Your task to perform on an android device: What is the news today? Image 0: 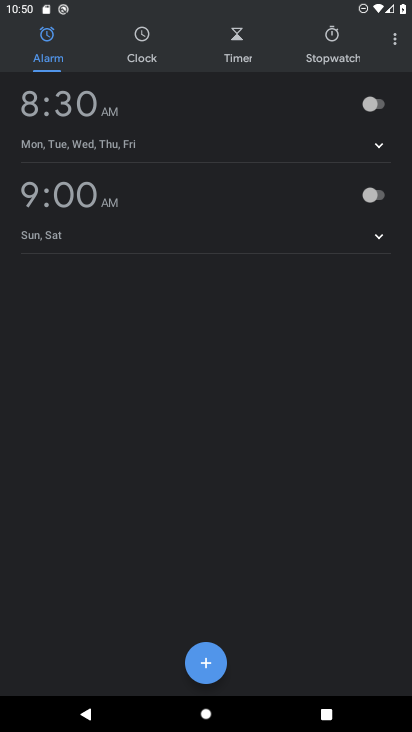
Step 0: press home button
Your task to perform on an android device: What is the news today? Image 1: 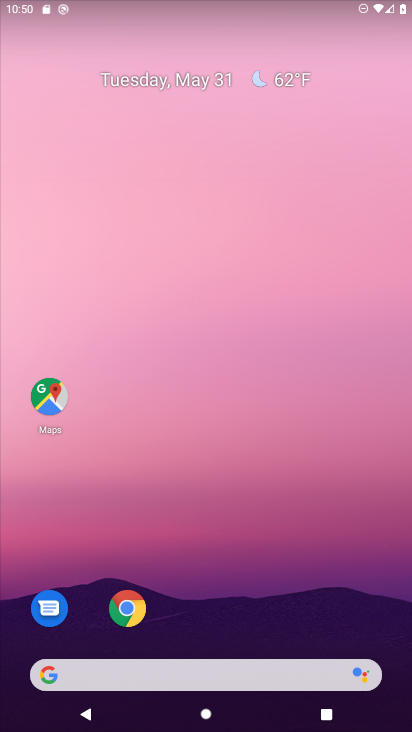
Step 1: drag from (360, 475) to (318, 145)
Your task to perform on an android device: What is the news today? Image 2: 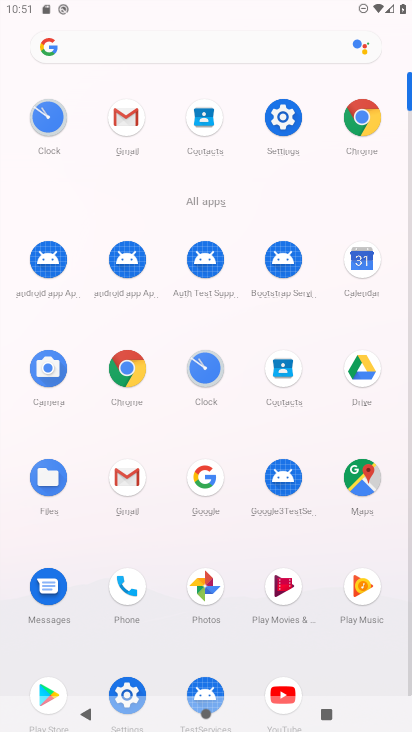
Step 2: click (133, 392)
Your task to perform on an android device: What is the news today? Image 3: 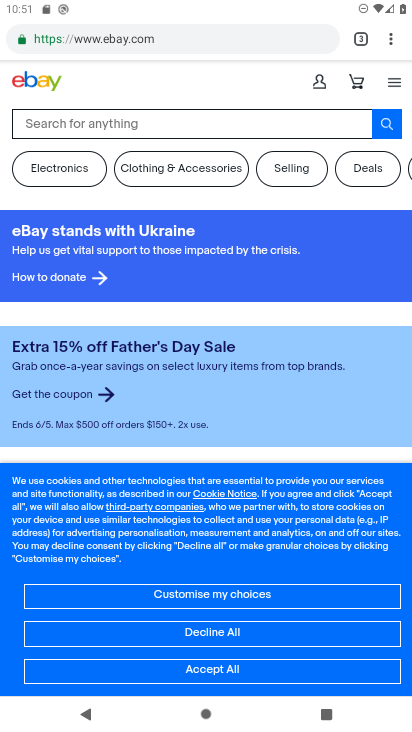
Step 3: click (96, 44)
Your task to perform on an android device: What is the news today? Image 4: 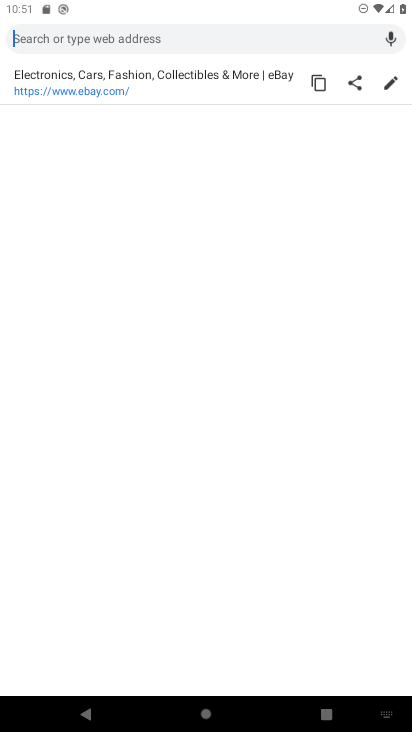
Step 4: type "what is the news today"
Your task to perform on an android device: What is the news today? Image 5: 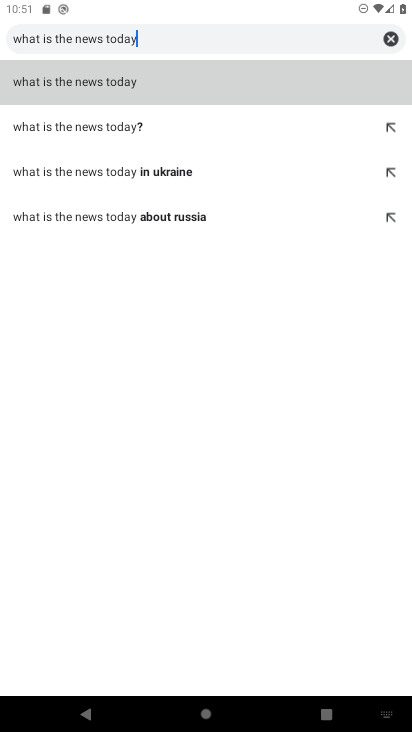
Step 5: click (127, 131)
Your task to perform on an android device: What is the news today? Image 6: 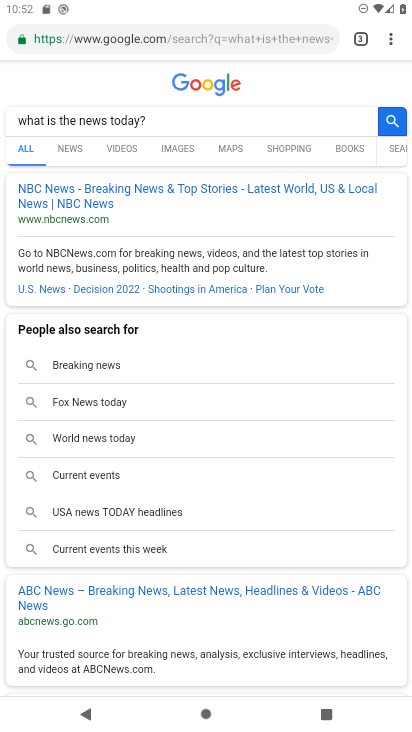
Step 6: task complete